Your task to perform on an android device: turn pop-ups on in chrome Image 0: 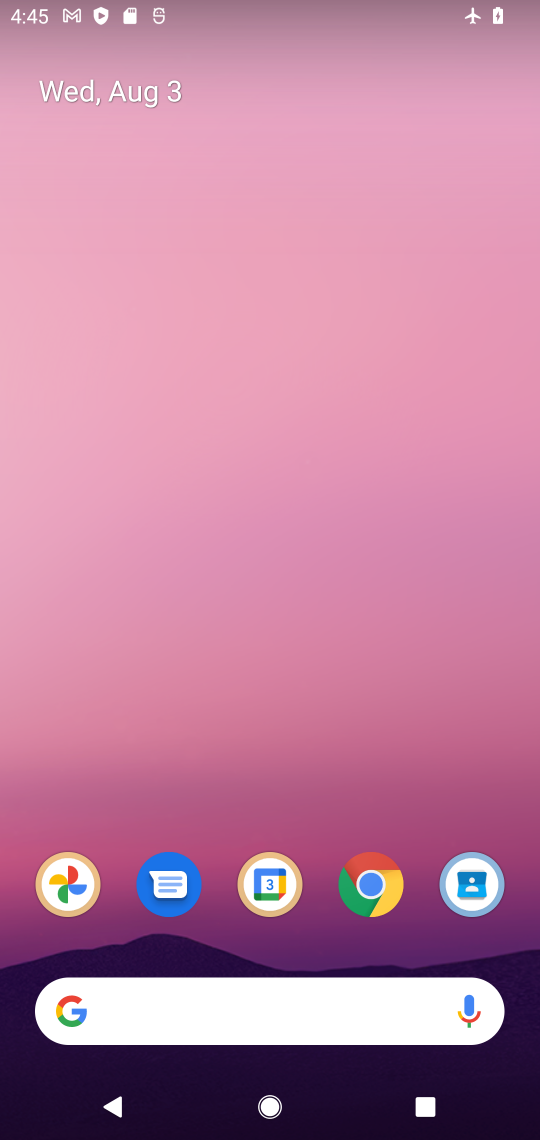
Step 0: drag from (288, 1078) to (323, 187)
Your task to perform on an android device: turn pop-ups on in chrome Image 1: 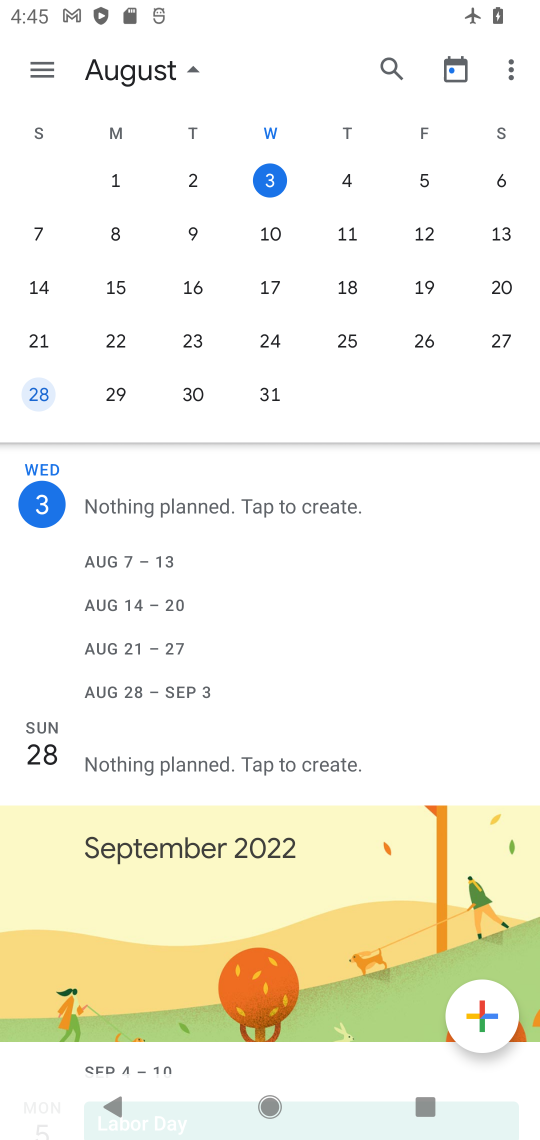
Step 1: press home button
Your task to perform on an android device: turn pop-ups on in chrome Image 2: 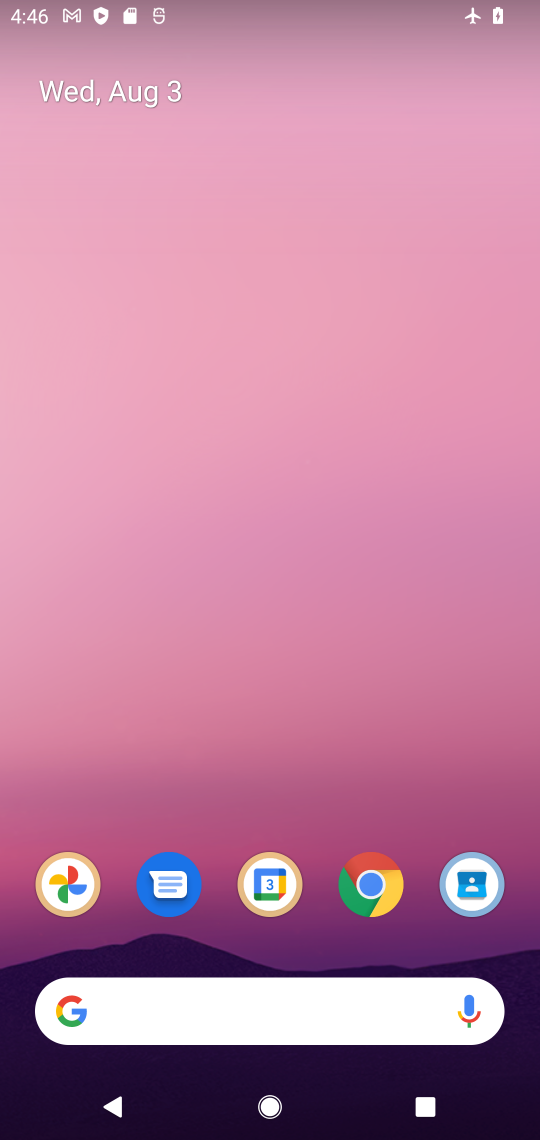
Step 2: drag from (233, 961) to (154, 145)
Your task to perform on an android device: turn pop-ups on in chrome Image 3: 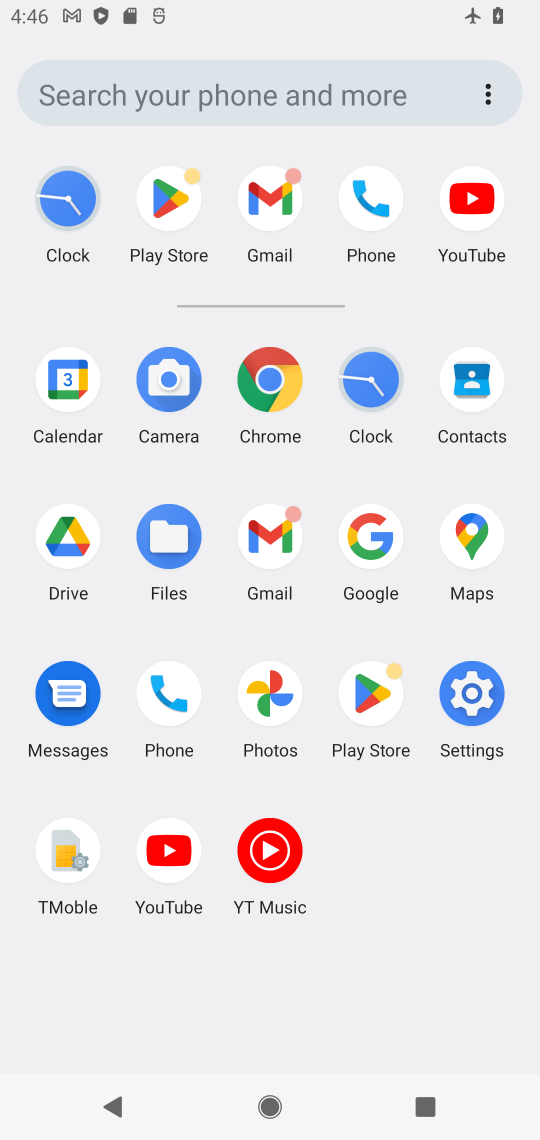
Step 3: click (261, 379)
Your task to perform on an android device: turn pop-ups on in chrome Image 4: 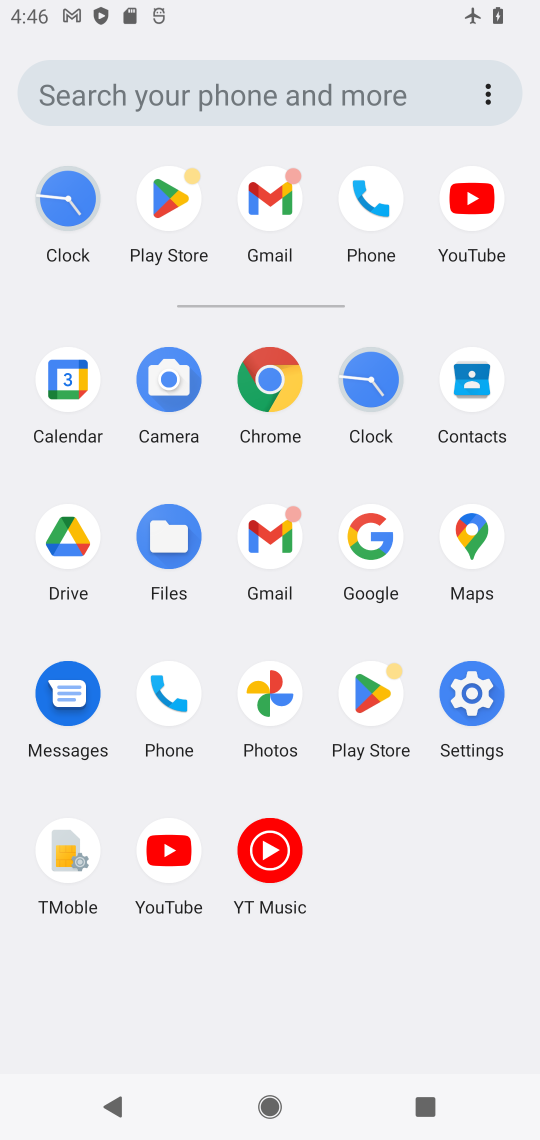
Step 4: click (268, 390)
Your task to perform on an android device: turn pop-ups on in chrome Image 5: 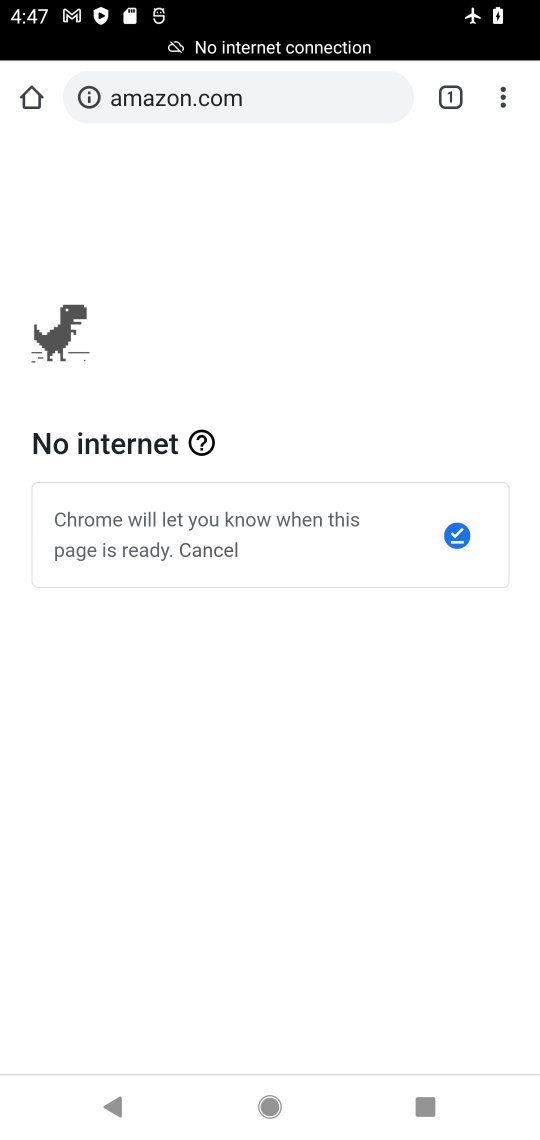
Step 5: drag from (493, 103) to (326, 843)
Your task to perform on an android device: turn pop-ups on in chrome Image 6: 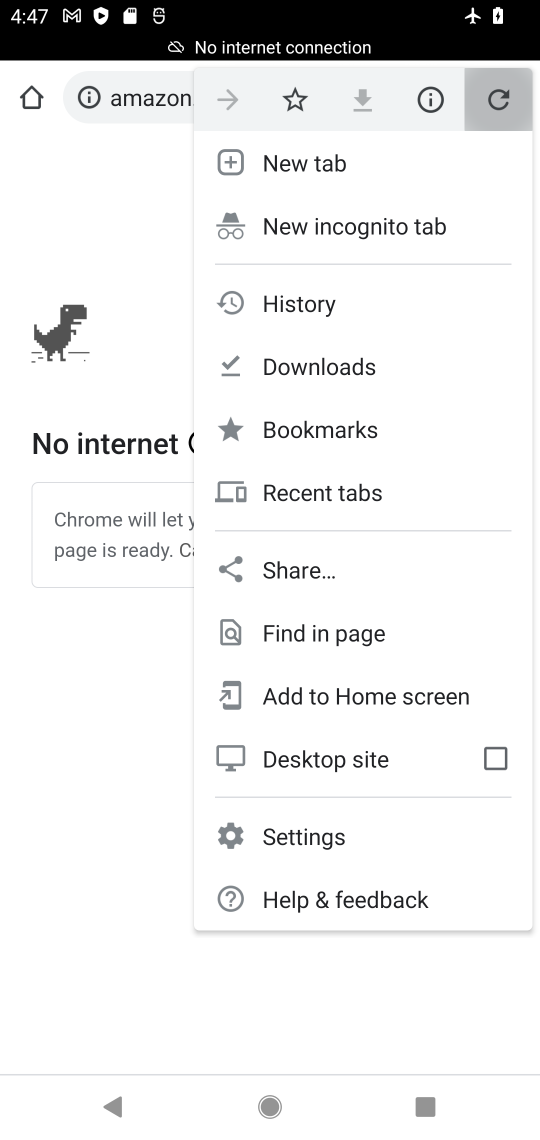
Step 6: click (322, 838)
Your task to perform on an android device: turn pop-ups on in chrome Image 7: 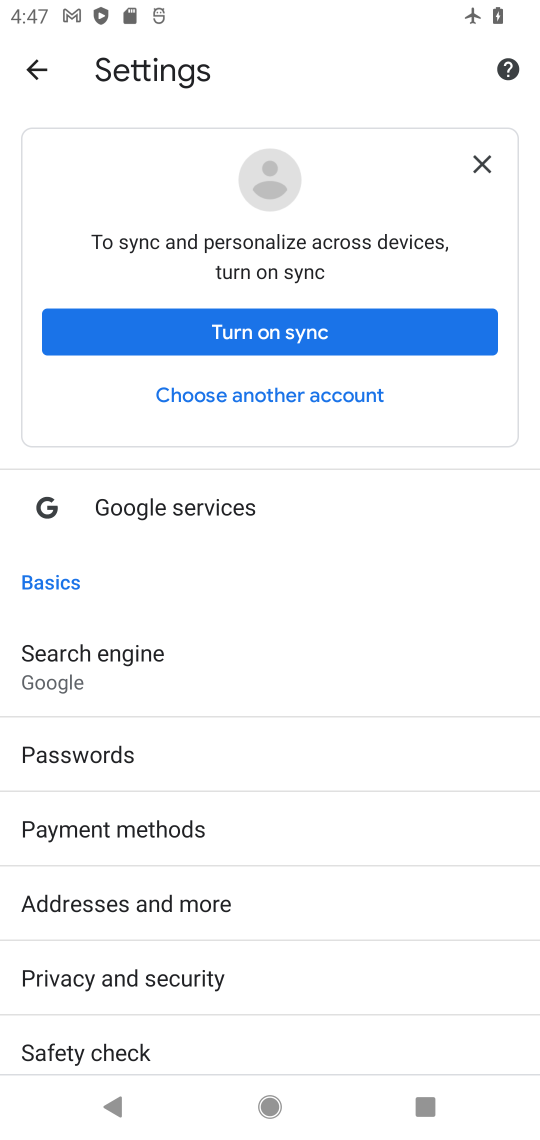
Step 7: drag from (214, 964) to (165, 421)
Your task to perform on an android device: turn pop-ups on in chrome Image 8: 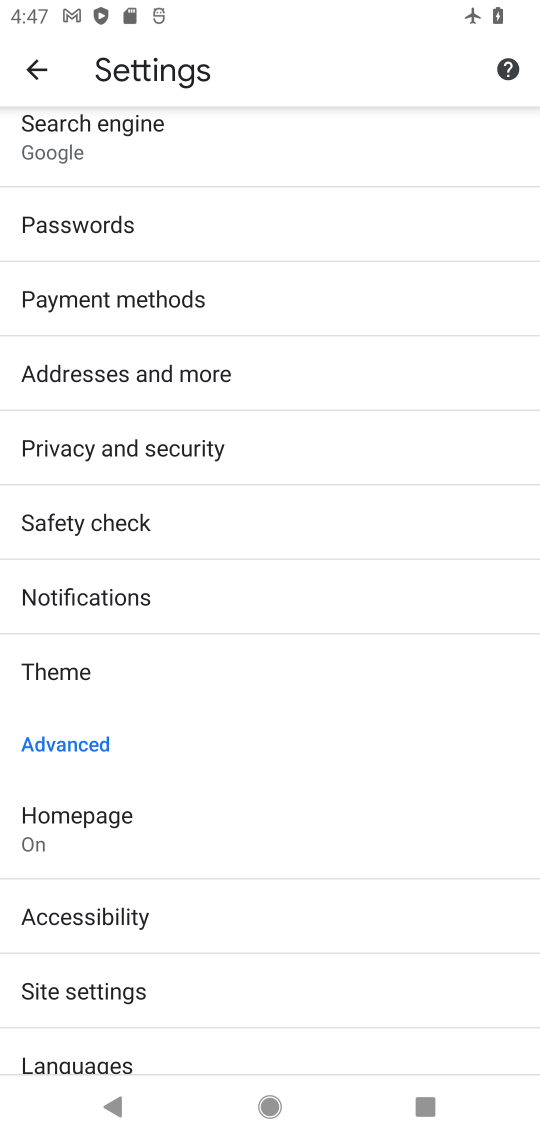
Step 8: click (147, 982)
Your task to perform on an android device: turn pop-ups on in chrome Image 9: 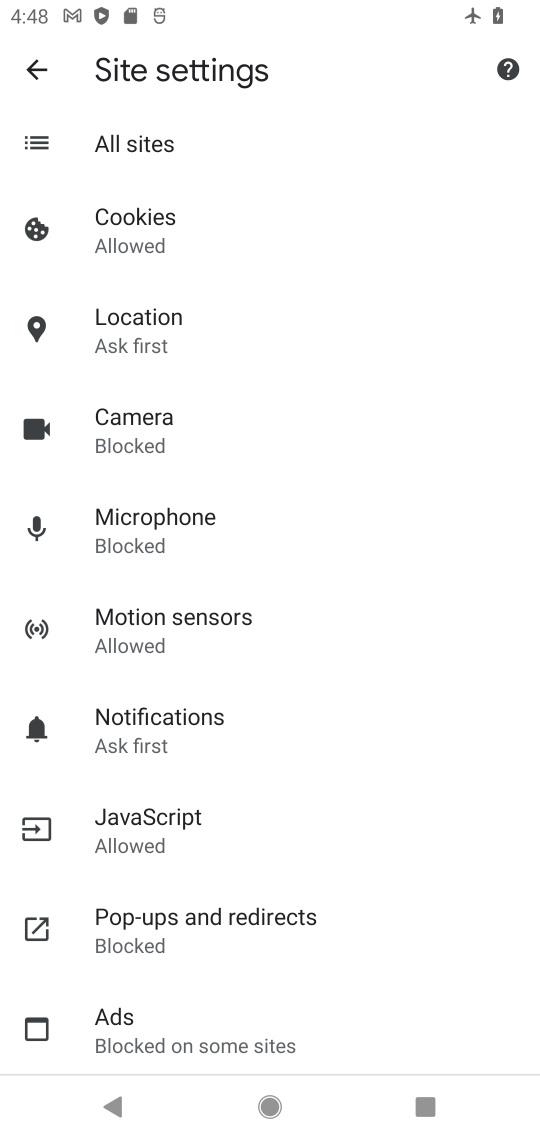
Step 9: click (209, 935)
Your task to perform on an android device: turn pop-ups on in chrome Image 10: 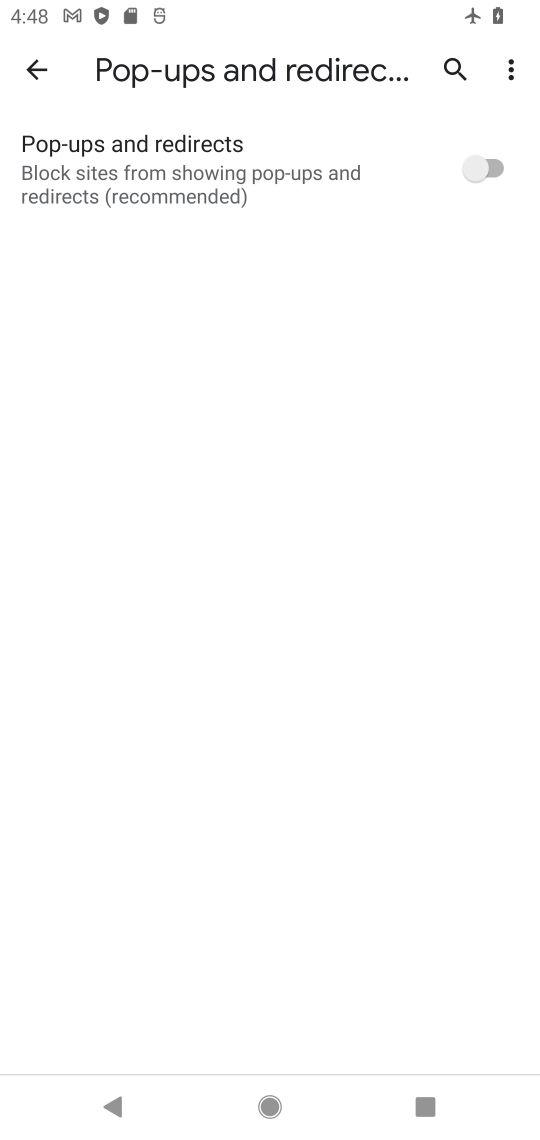
Step 10: click (469, 169)
Your task to perform on an android device: turn pop-ups on in chrome Image 11: 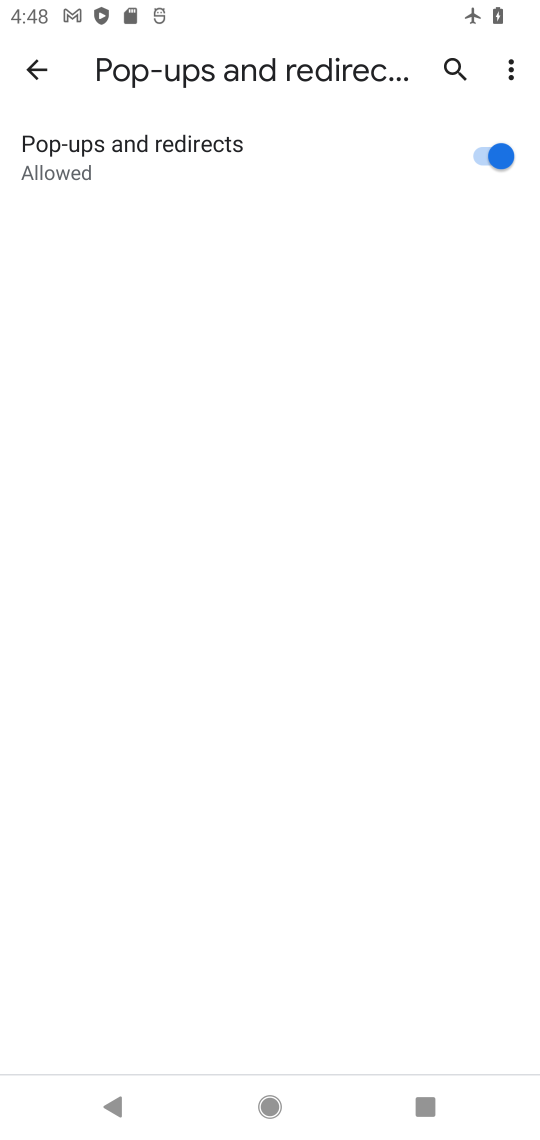
Step 11: task complete